Your task to perform on an android device: toggle location history Image 0: 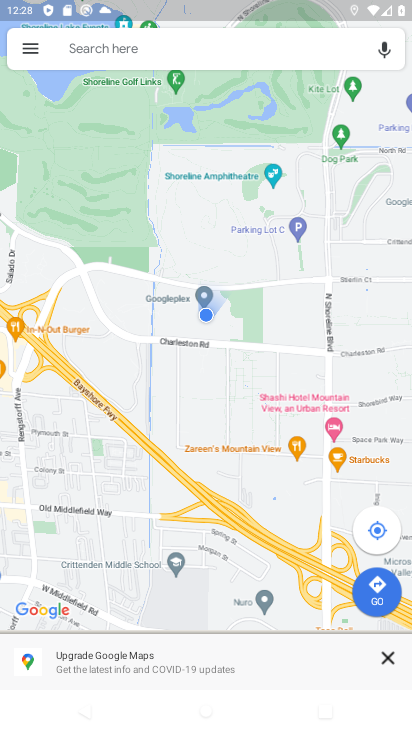
Step 0: press back button
Your task to perform on an android device: toggle location history Image 1: 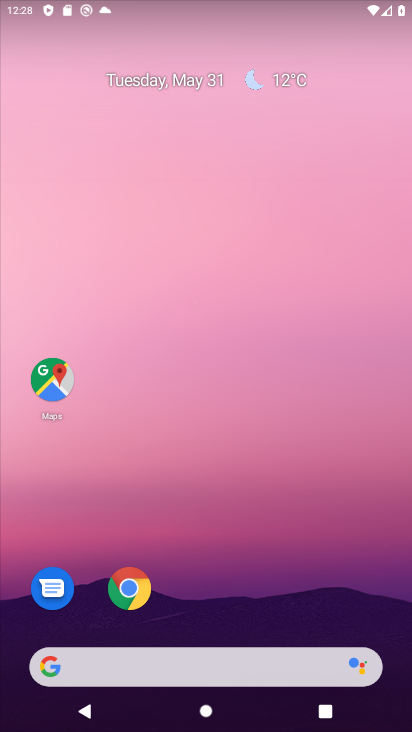
Step 1: drag from (395, 676) to (395, 279)
Your task to perform on an android device: toggle location history Image 2: 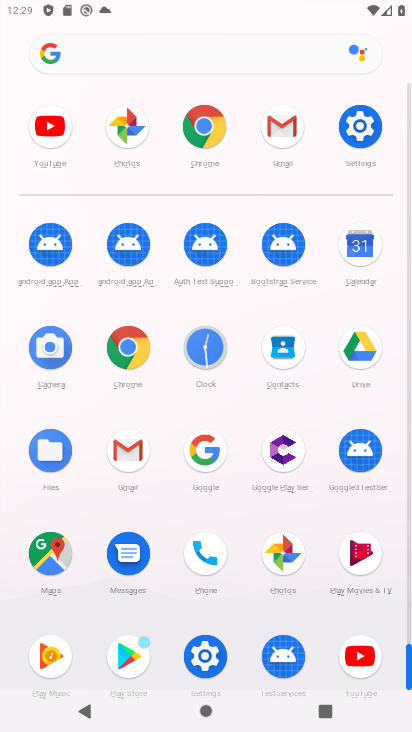
Step 2: click (205, 656)
Your task to perform on an android device: toggle location history Image 3: 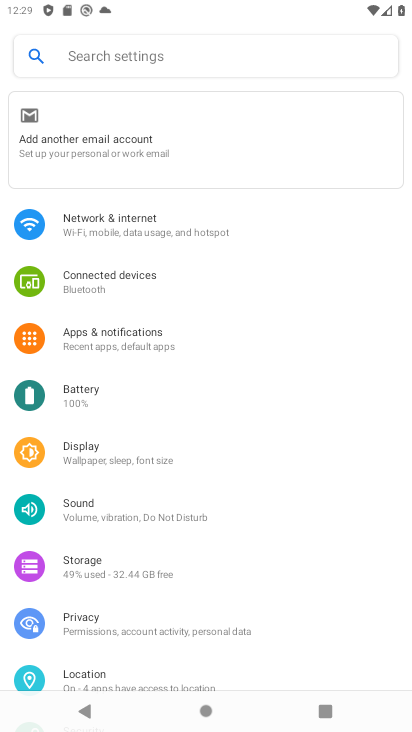
Step 3: click (97, 669)
Your task to perform on an android device: toggle location history Image 4: 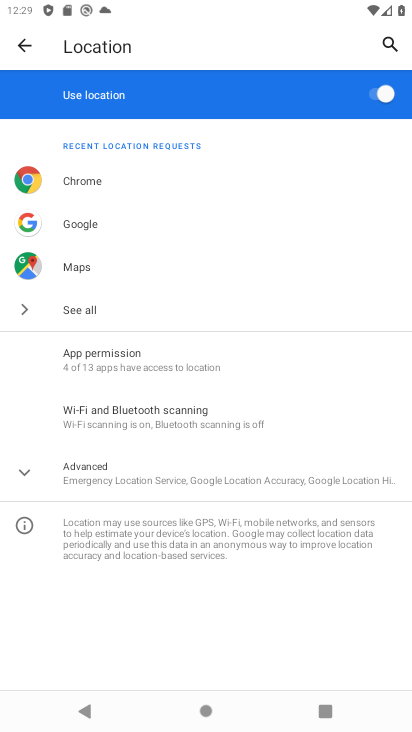
Step 4: click (372, 93)
Your task to perform on an android device: toggle location history Image 5: 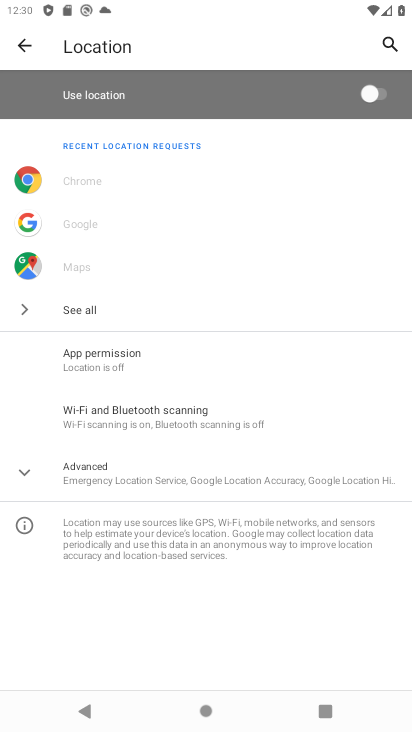
Step 5: task complete